Your task to perform on an android device: Open Chrome and go to settings Image 0: 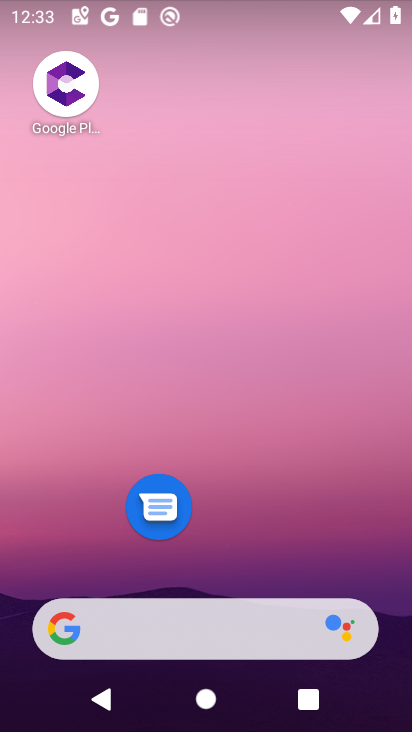
Step 0: drag from (215, 546) to (241, 48)
Your task to perform on an android device: Open Chrome and go to settings Image 1: 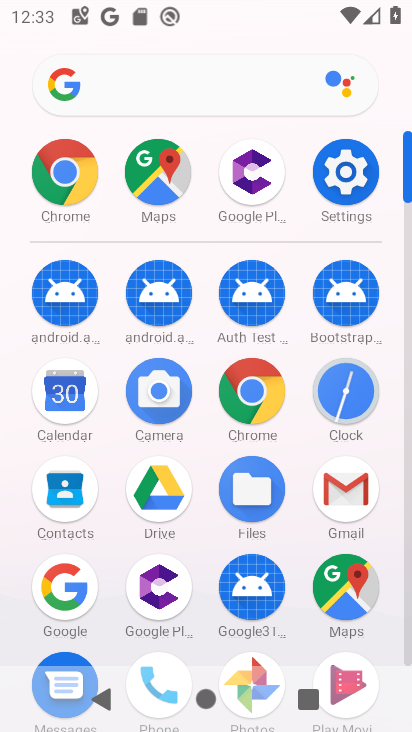
Step 1: click (260, 394)
Your task to perform on an android device: Open Chrome and go to settings Image 2: 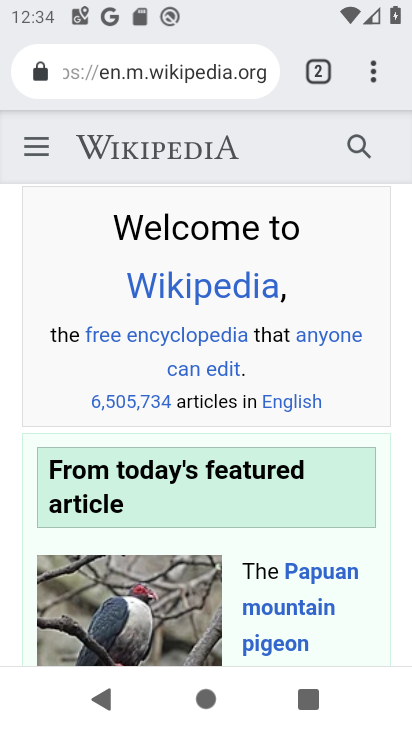
Step 2: task complete